Your task to perform on an android device: Open settings Image 0: 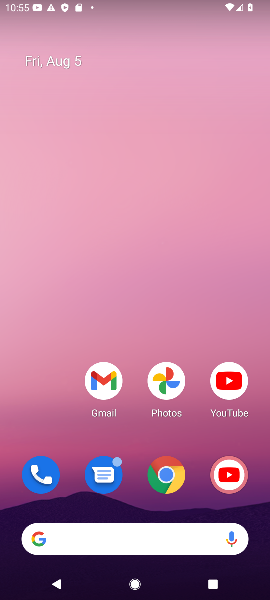
Step 0: drag from (125, 497) to (131, 90)
Your task to perform on an android device: Open settings Image 1: 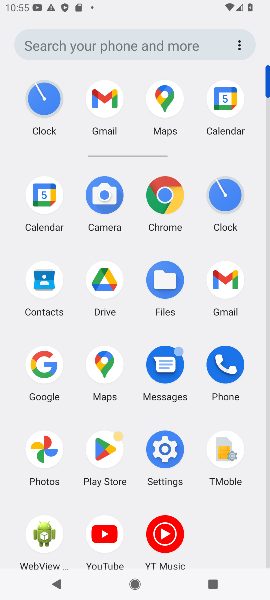
Step 1: click (165, 459)
Your task to perform on an android device: Open settings Image 2: 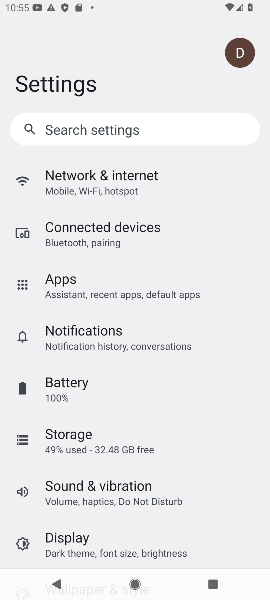
Step 2: task complete